Your task to perform on an android device: Open Chrome and go to the settings page Image 0: 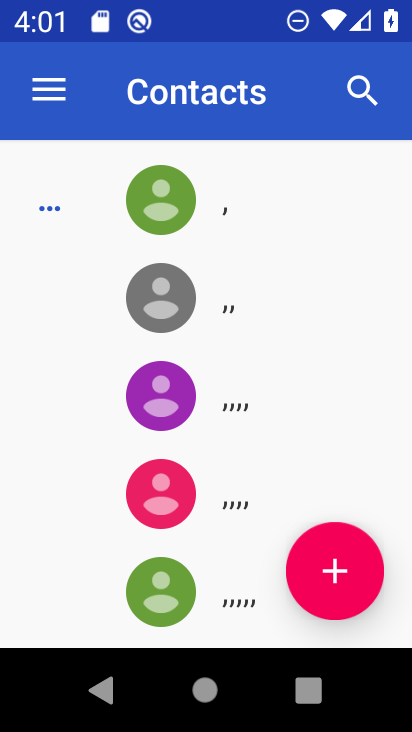
Step 0: press home button
Your task to perform on an android device: Open Chrome and go to the settings page Image 1: 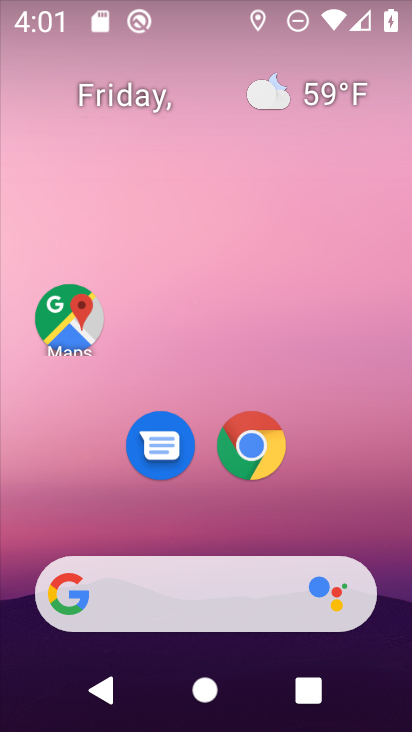
Step 1: click (244, 444)
Your task to perform on an android device: Open Chrome and go to the settings page Image 2: 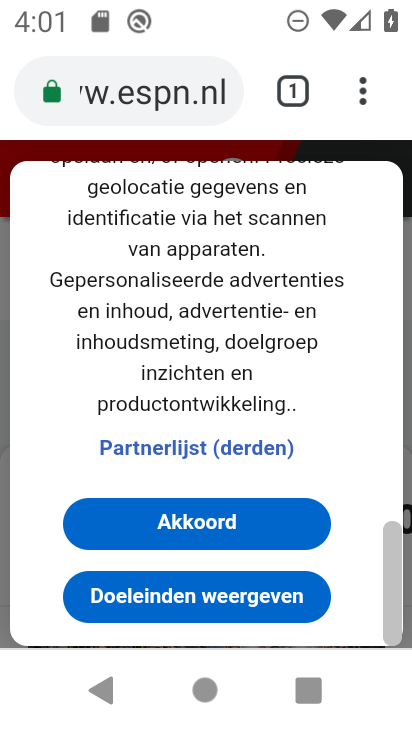
Step 2: click (357, 94)
Your task to perform on an android device: Open Chrome and go to the settings page Image 3: 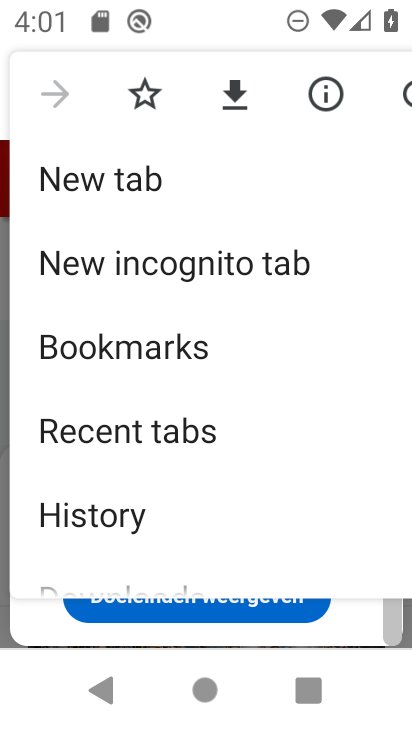
Step 3: drag from (201, 531) to (274, 235)
Your task to perform on an android device: Open Chrome and go to the settings page Image 4: 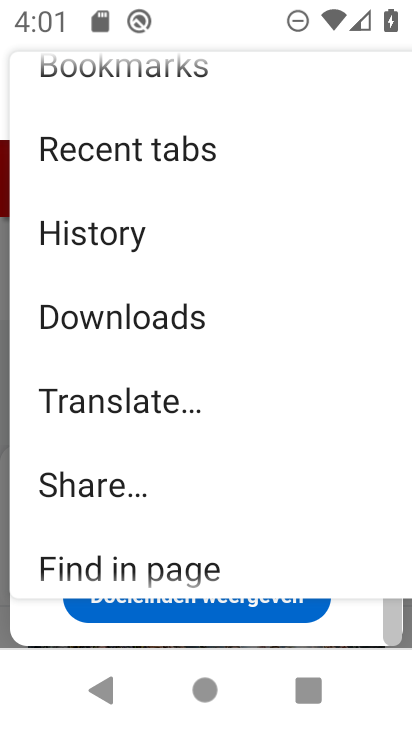
Step 4: drag from (267, 482) to (276, 232)
Your task to perform on an android device: Open Chrome and go to the settings page Image 5: 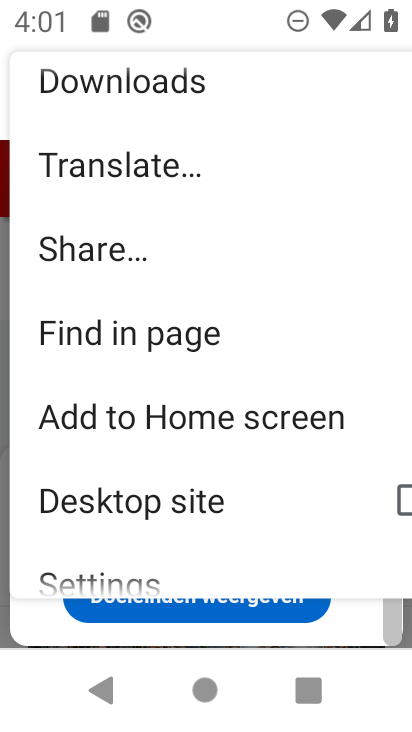
Step 5: drag from (242, 518) to (324, 224)
Your task to perform on an android device: Open Chrome and go to the settings page Image 6: 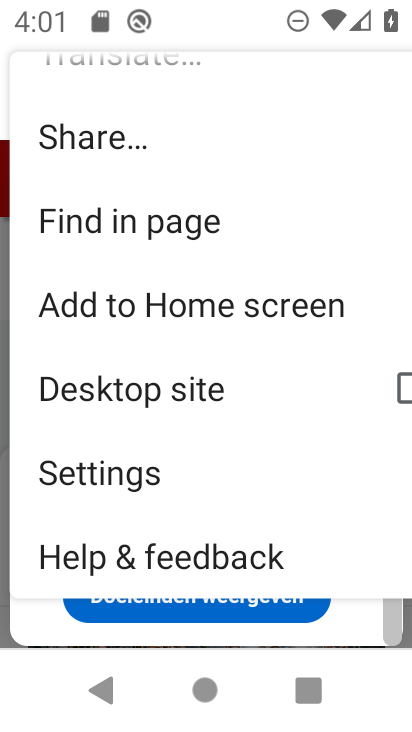
Step 6: click (90, 472)
Your task to perform on an android device: Open Chrome and go to the settings page Image 7: 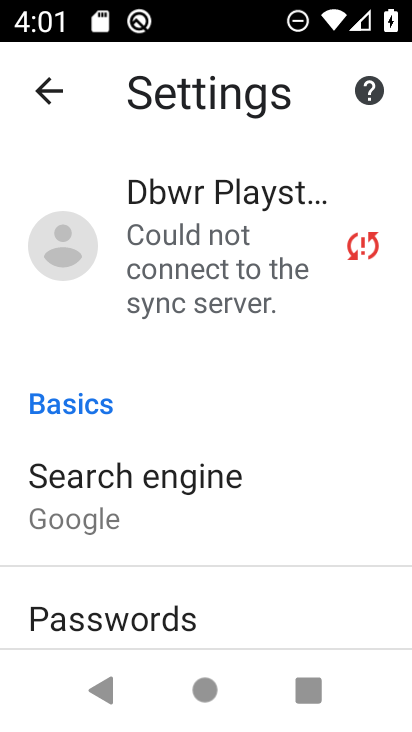
Step 7: task complete